Your task to perform on an android device: Open battery settings Image 0: 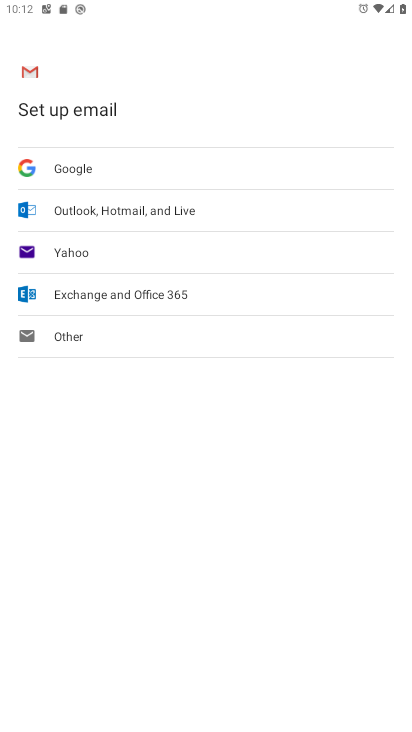
Step 0: press home button
Your task to perform on an android device: Open battery settings Image 1: 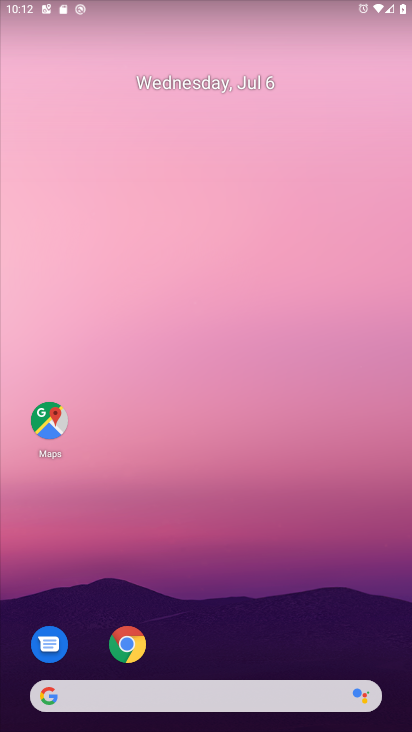
Step 1: drag from (260, 646) to (294, 108)
Your task to perform on an android device: Open battery settings Image 2: 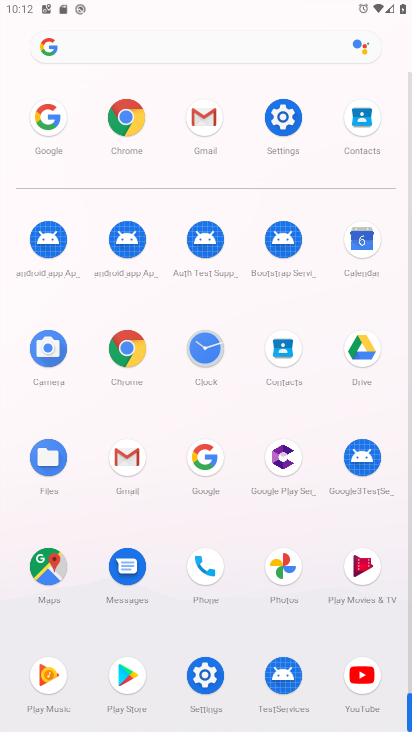
Step 2: click (293, 139)
Your task to perform on an android device: Open battery settings Image 3: 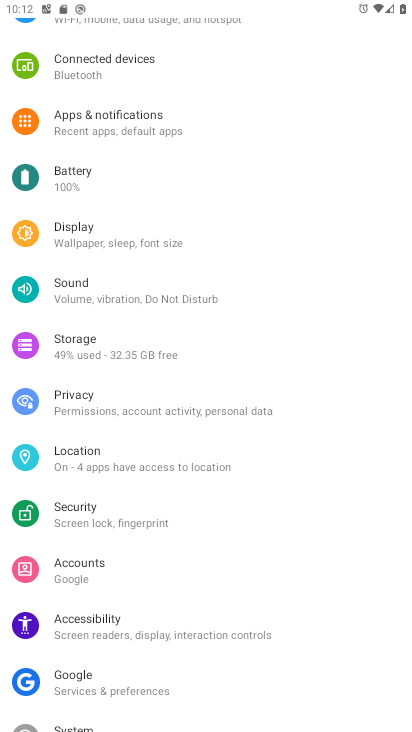
Step 3: click (155, 184)
Your task to perform on an android device: Open battery settings Image 4: 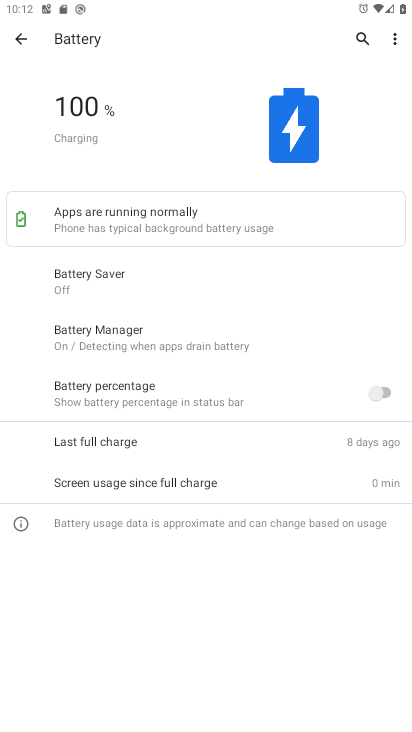
Step 4: task complete